Your task to perform on an android device: Install the Google app Image 0: 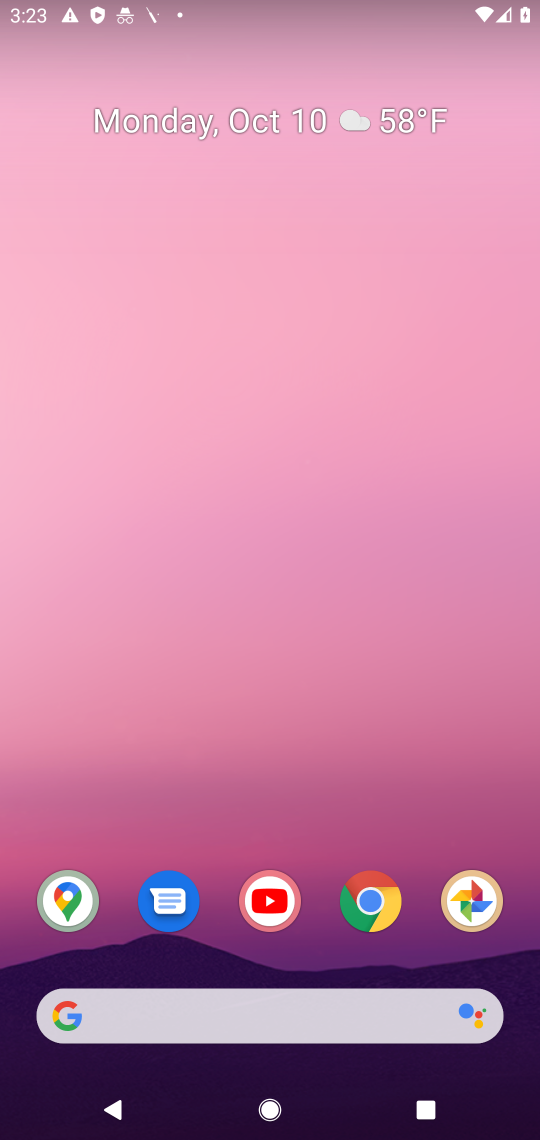
Step 0: drag from (382, 970) to (382, 587)
Your task to perform on an android device: Install the Google app Image 1: 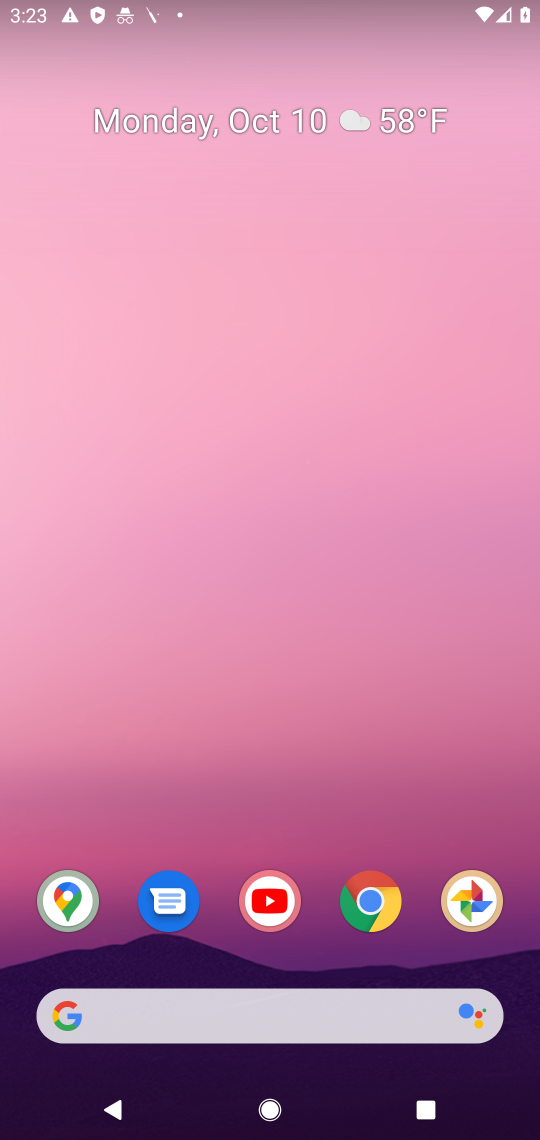
Step 1: drag from (370, 1013) to (347, 574)
Your task to perform on an android device: Install the Google app Image 2: 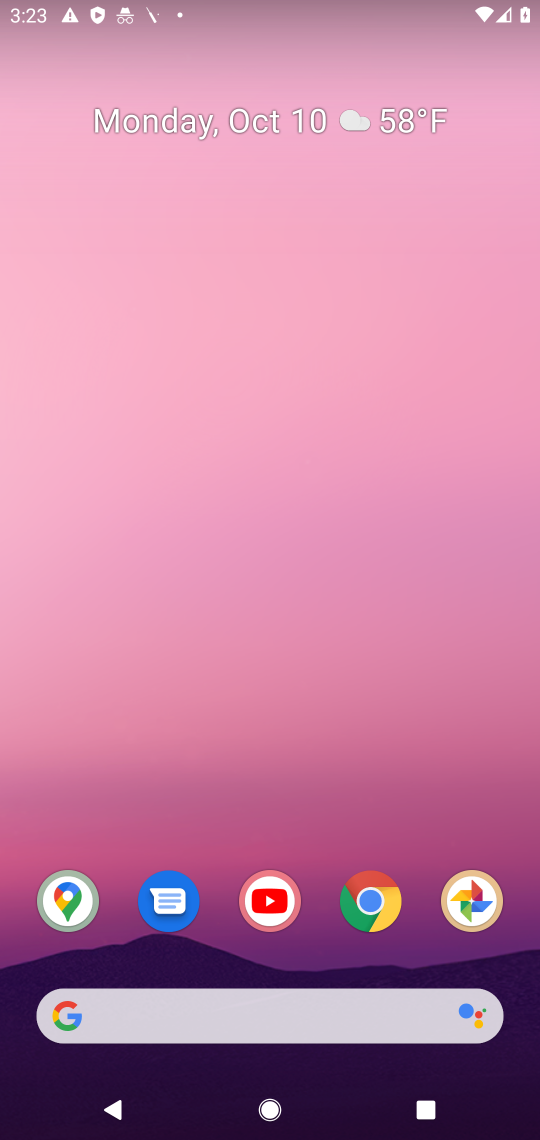
Step 2: drag from (340, 978) to (312, 575)
Your task to perform on an android device: Install the Google app Image 3: 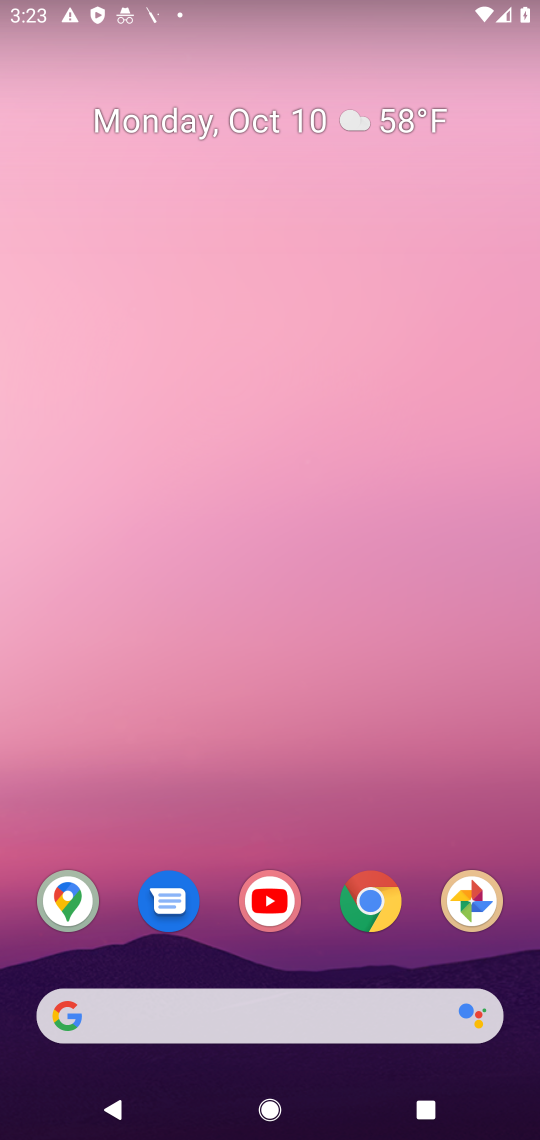
Step 3: drag from (262, 984) to (246, 28)
Your task to perform on an android device: Install the Google app Image 4: 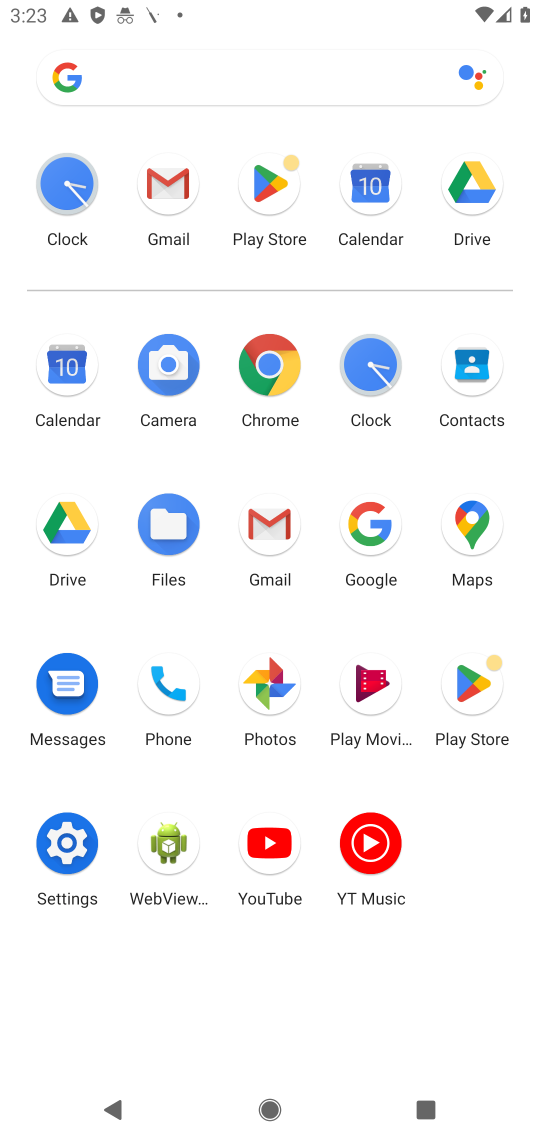
Step 4: click (279, 270)
Your task to perform on an android device: Install the Google app Image 5: 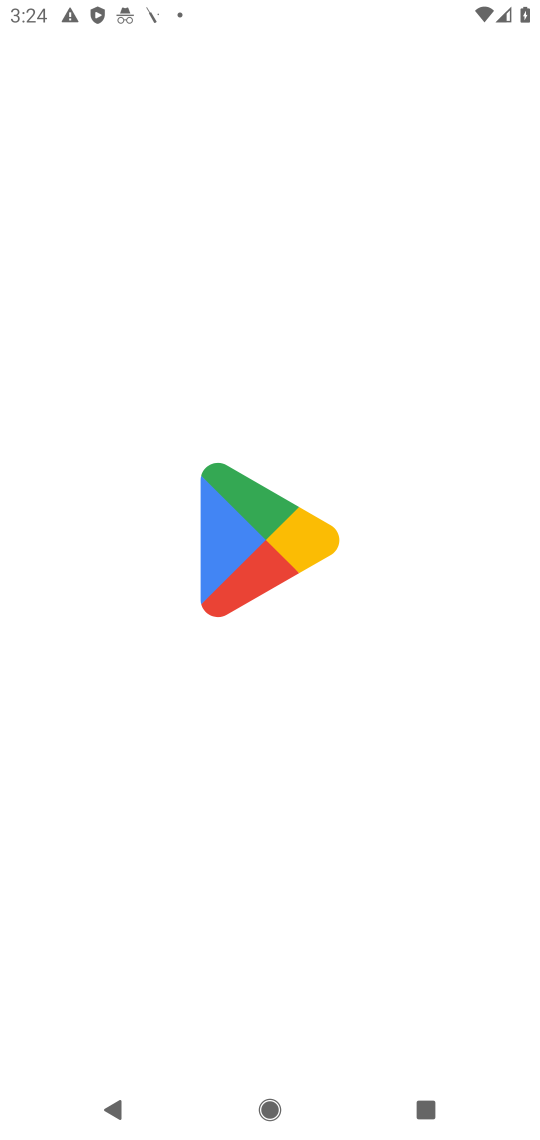
Step 5: task complete